Your task to perform on an android device: add a label to a message in the gmail app Image 0: 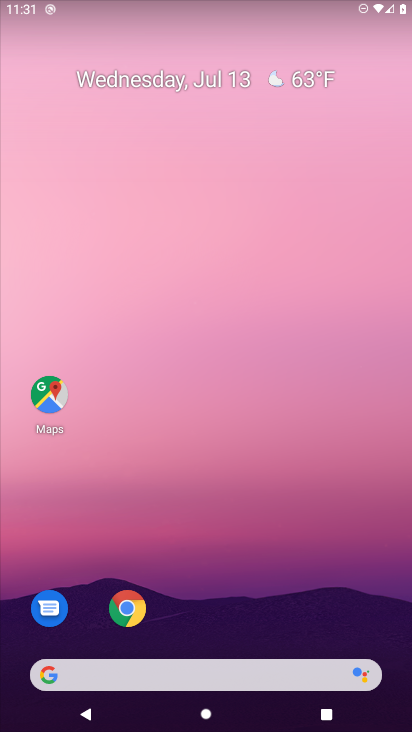
Step 0: drag from (207, 379) to (190, 133)
Your task to perform on an android device: add a label to a message in the gmail app Image 1: 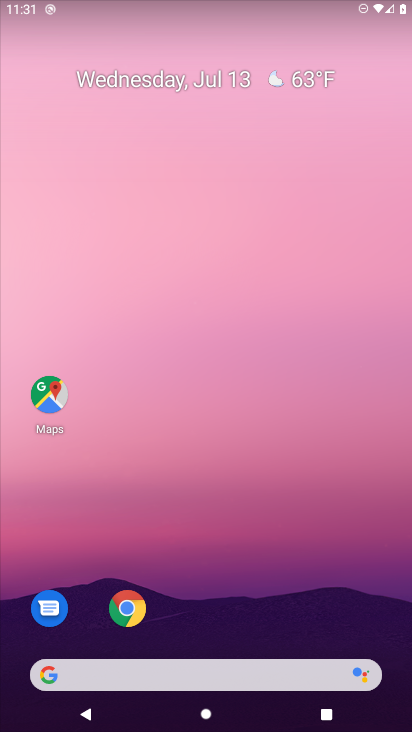
Step 1: drag from (179, 479) to (213, 34)
Your task to perform on an android device: add a label to a message in the gmail app Image 2: 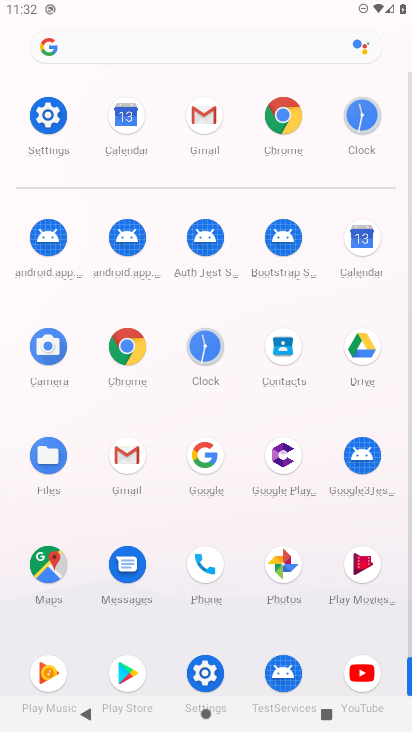
Step 2: click (196, 117)
Your task to perform on an android device: add a label to a message in the gmail app Image 3: 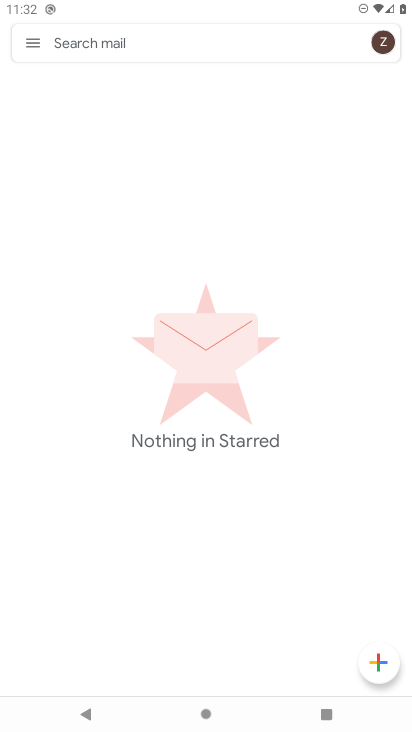
Step 3: click (31, 43)
Your task to perform on an android device: add a label to a message in the gmail app Image 4: 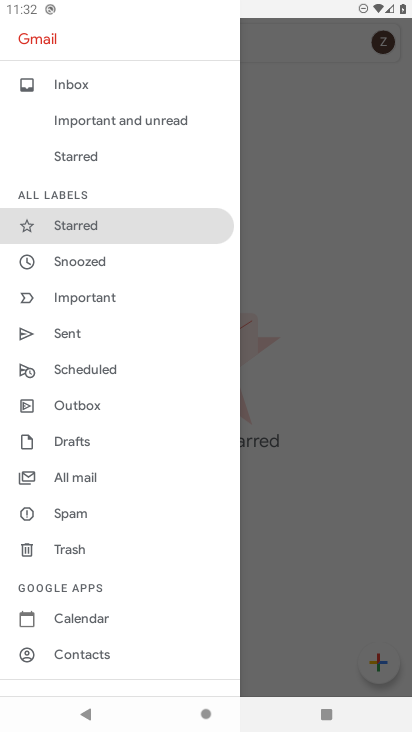
Step 4: click (81, 476)
Your task to perform on an android device: add a label to a message in the gmail app Image 5: 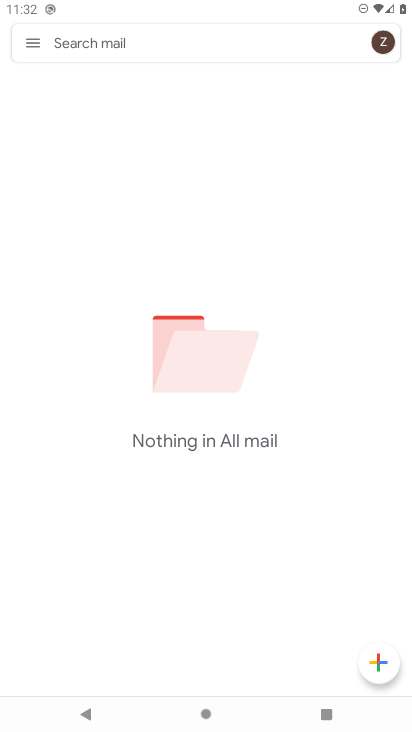
Step 5: task complete